Your task to perform on an android device: Search for a new desk on IKEA Image 0: 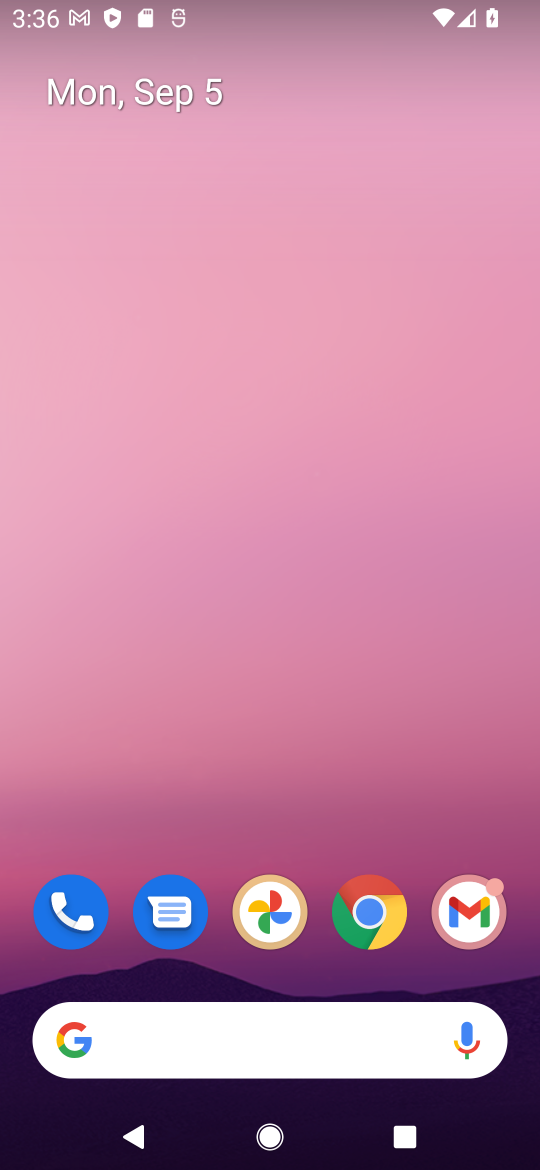
Step 0: click (355, 923)
Your task to perform on an android device: Search for a new desk on IKEA Image 1: 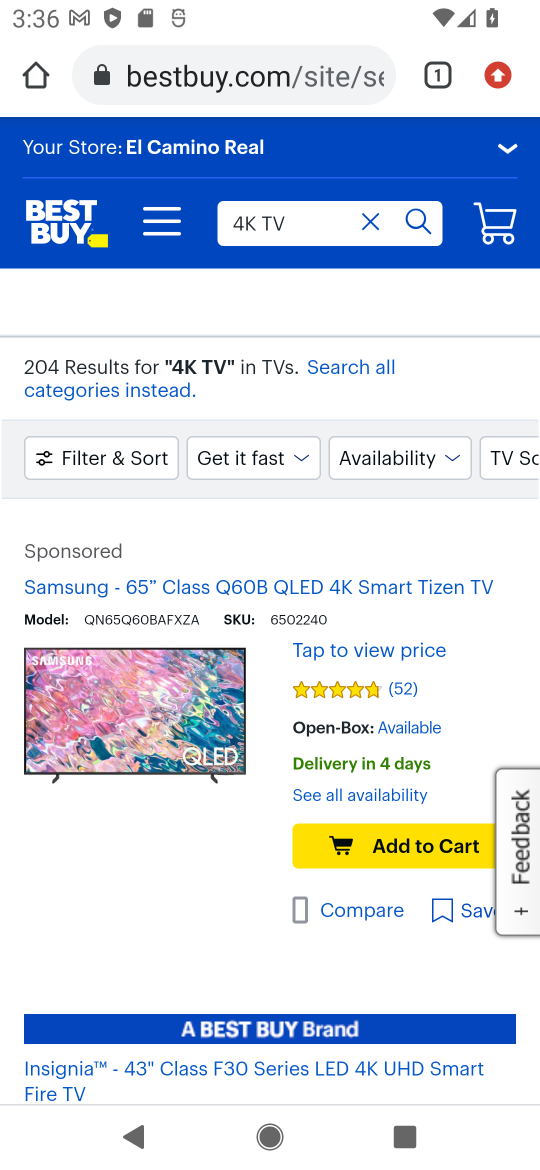
Step 1: click (279, 67)
Your task to perform on an android device: Search for a new desk on IKEA Image 2: 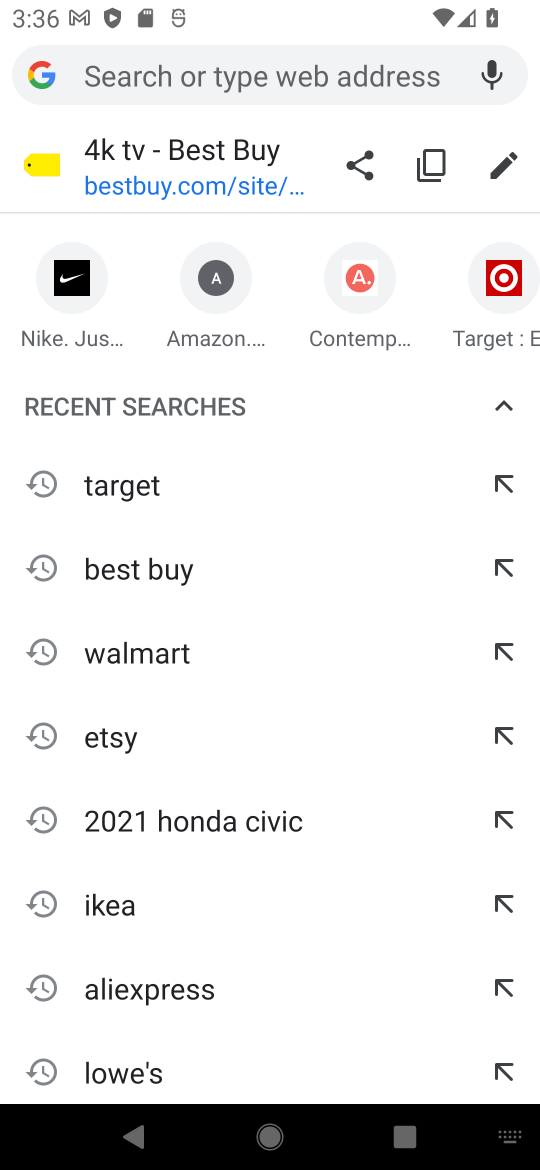
Step 2: type "ikea"
Your task to perform on an android device: Search for a new desk on IKEA Image 3: 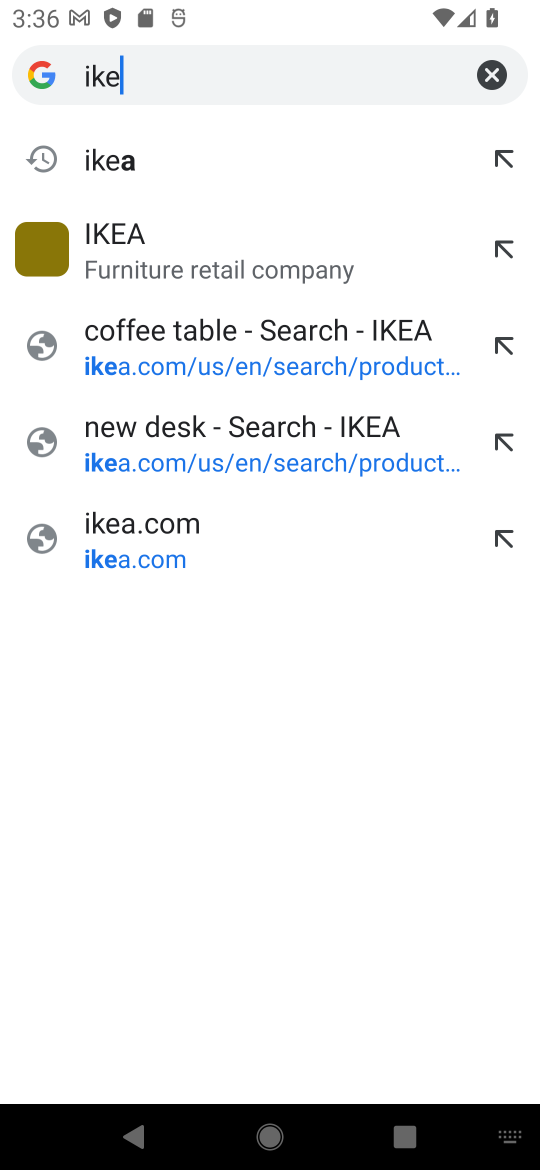
Step 3: type ""
Your task to perform on an android device: Search for a new desk on IKEA Image 4: 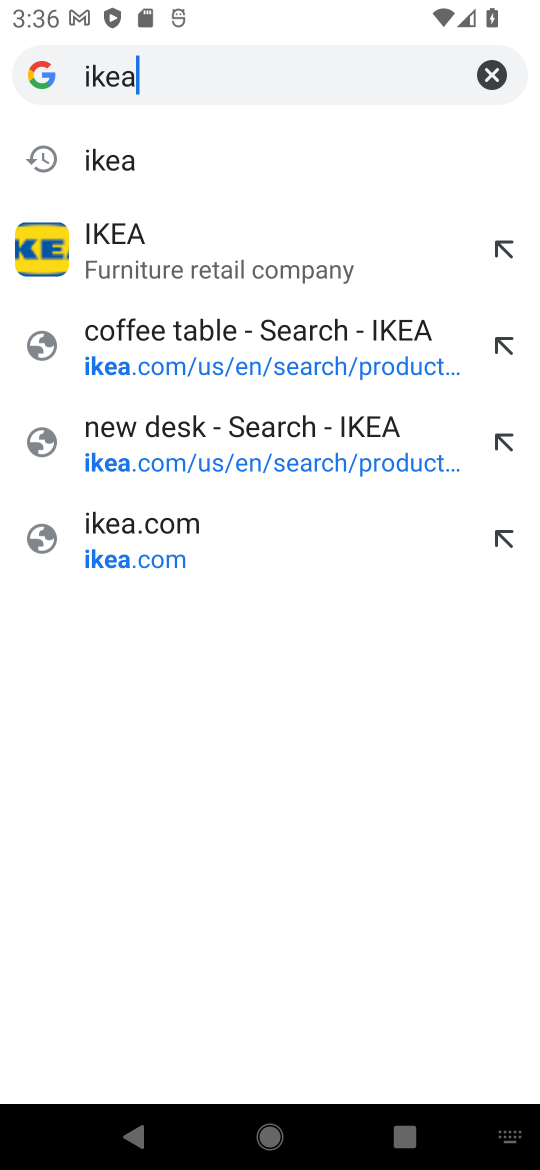
Step 4: press enter
Your task to perform on an android device: Search for a new desk on IKEA Image 5: 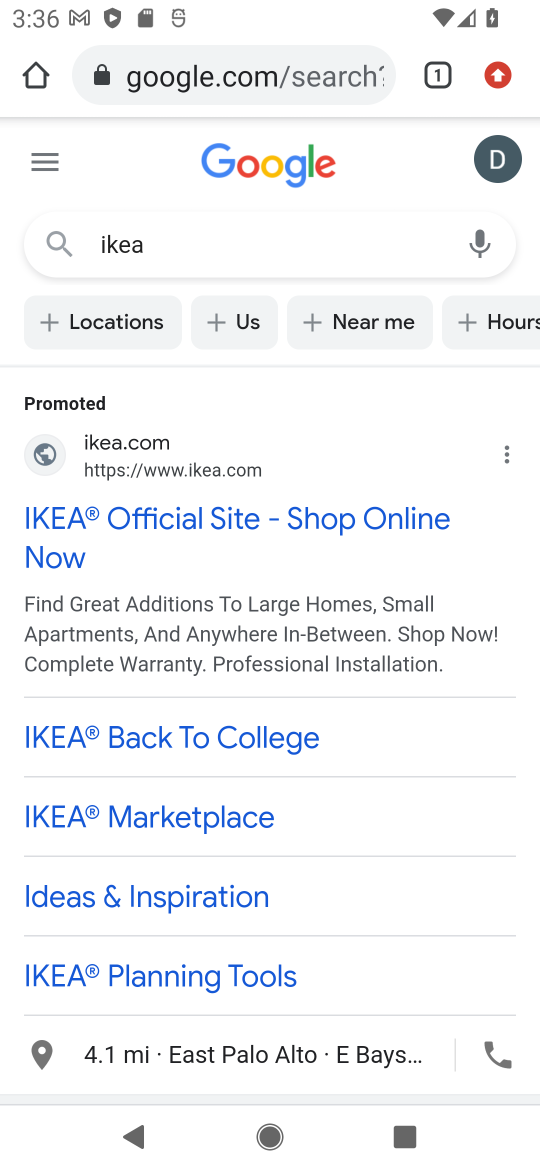
Step 5: click (227, 508)
Your task to perform on an android device: Search for a new desk on IKEA Image 6: 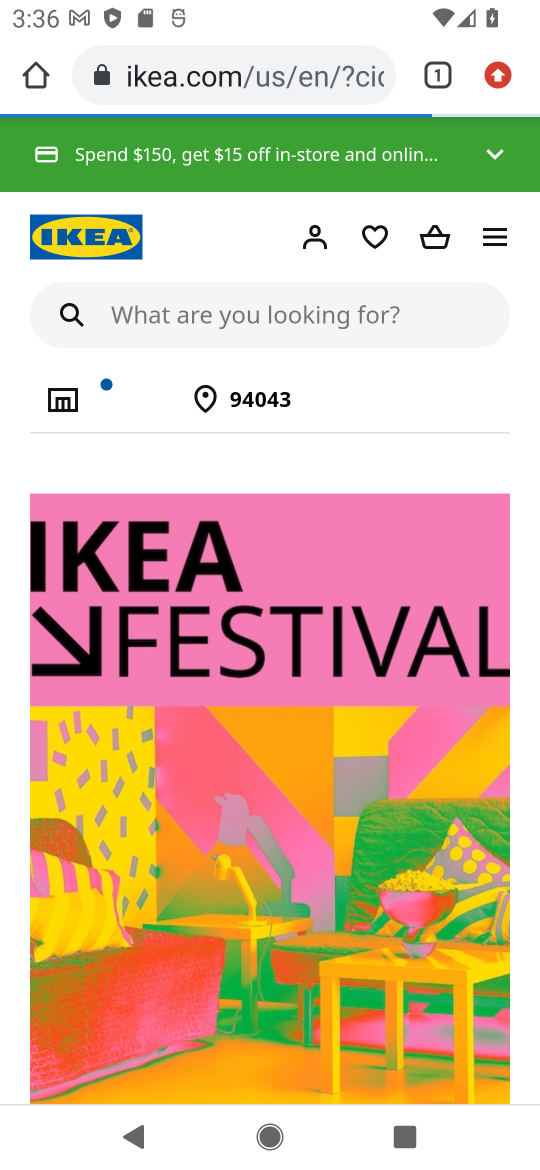
Step 6: click (259, 317)
Your task to perform on an android device: Search for a new desk on IKEA Image 7: 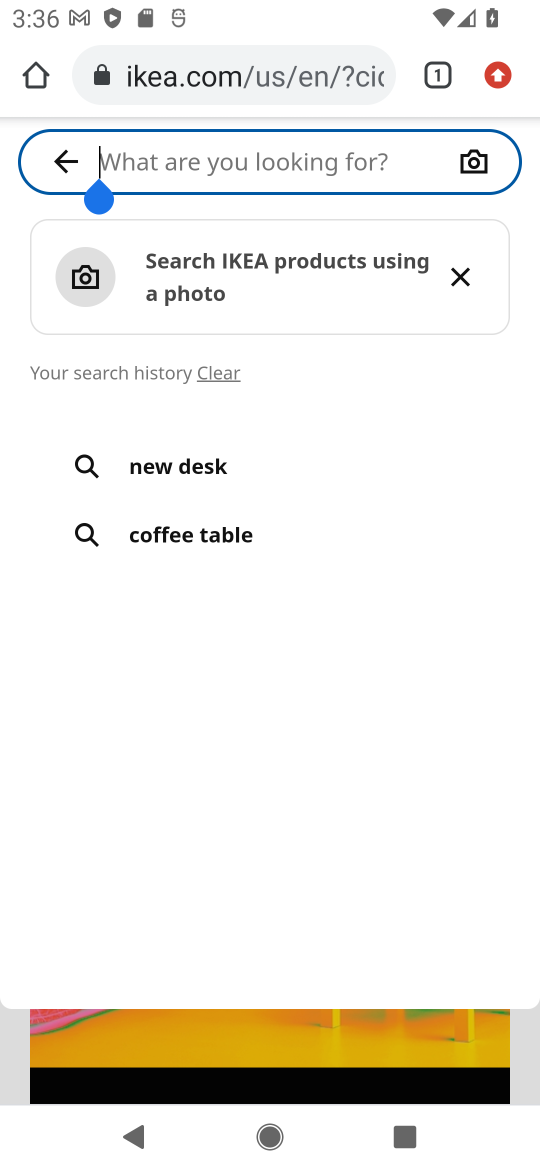
Step 7: type "new desk"
Your task to perform on an android device: Search for a new desk on IKEA Image 8: 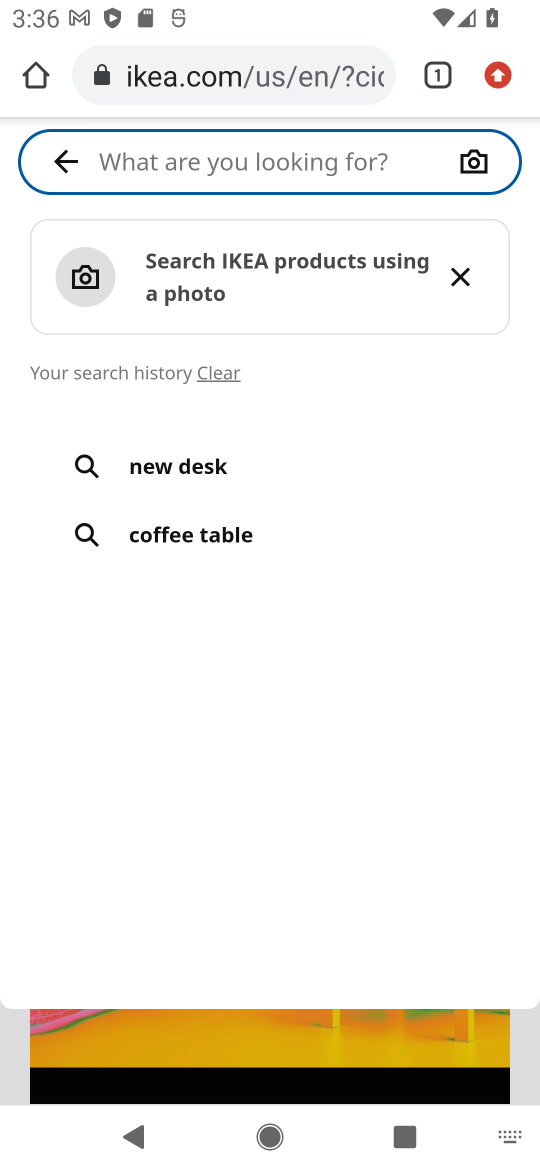
Step 8: type ""
Your task to perform on an android device: Search for a new desk on IKEA Image 9: 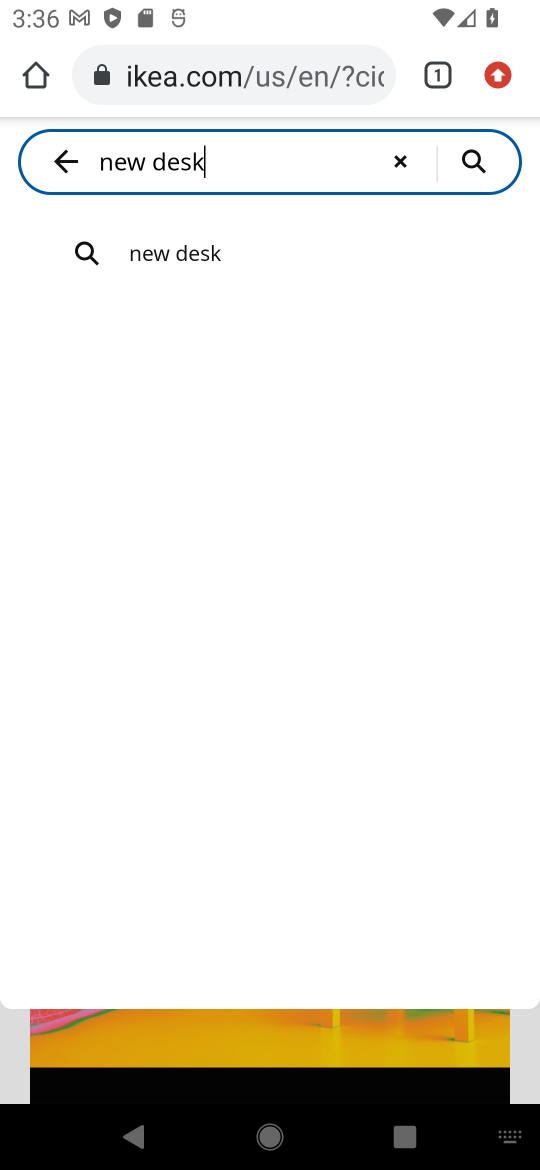
Step 9: press enter
Your task to perform on an android device: Search for a new desk on IKEA Image 10: 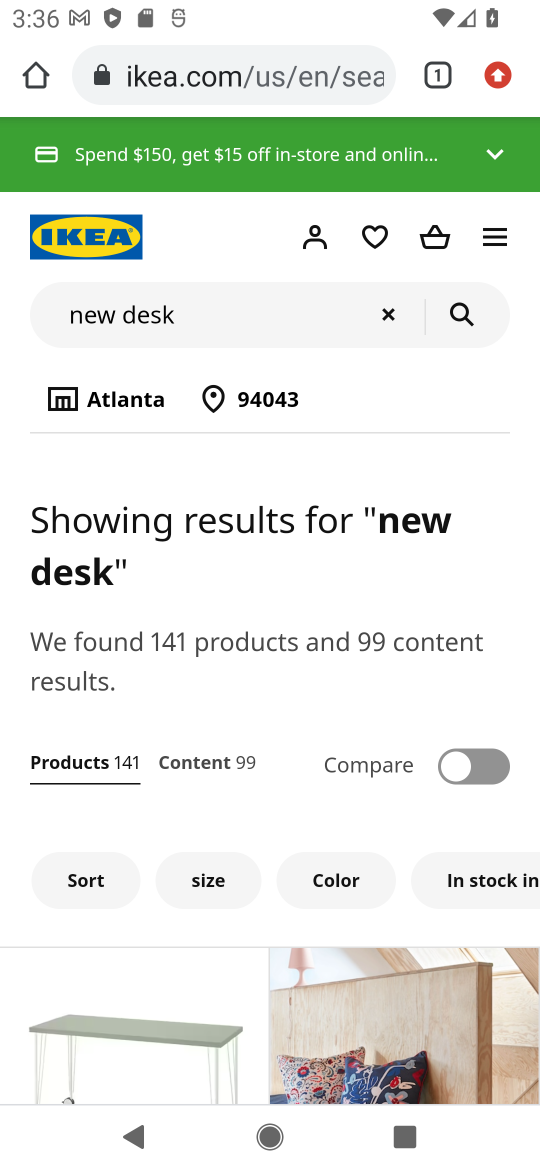
Step 10: click (92, 889)
Your task to perform on an android device: Search for a new desk on IKEA Image 11: 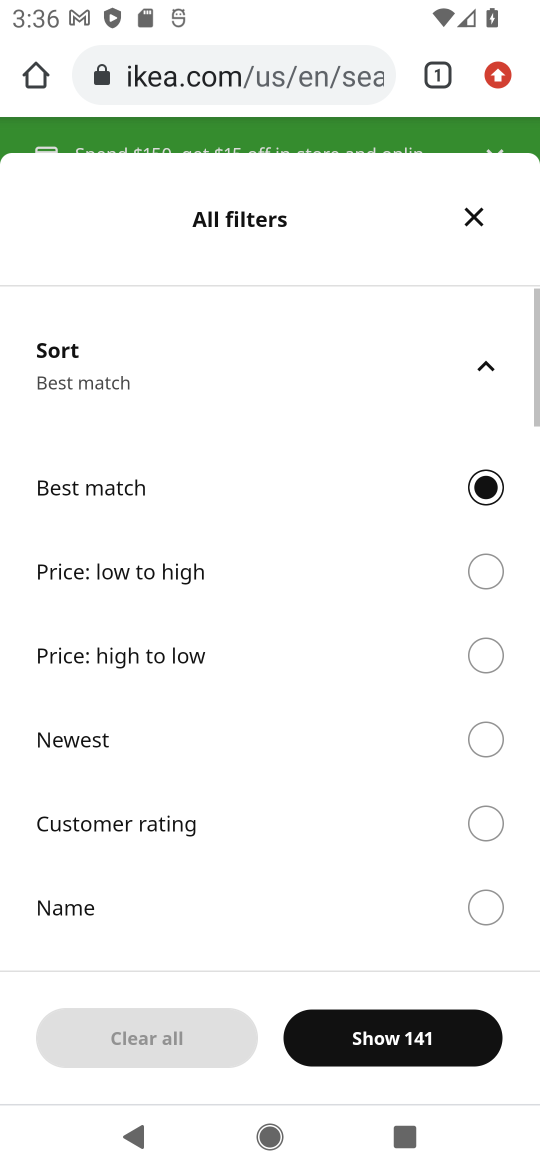
Step 11: click (486, 736)
Your task to perform on an android device: Search for a new desk on IKEA Image 12: 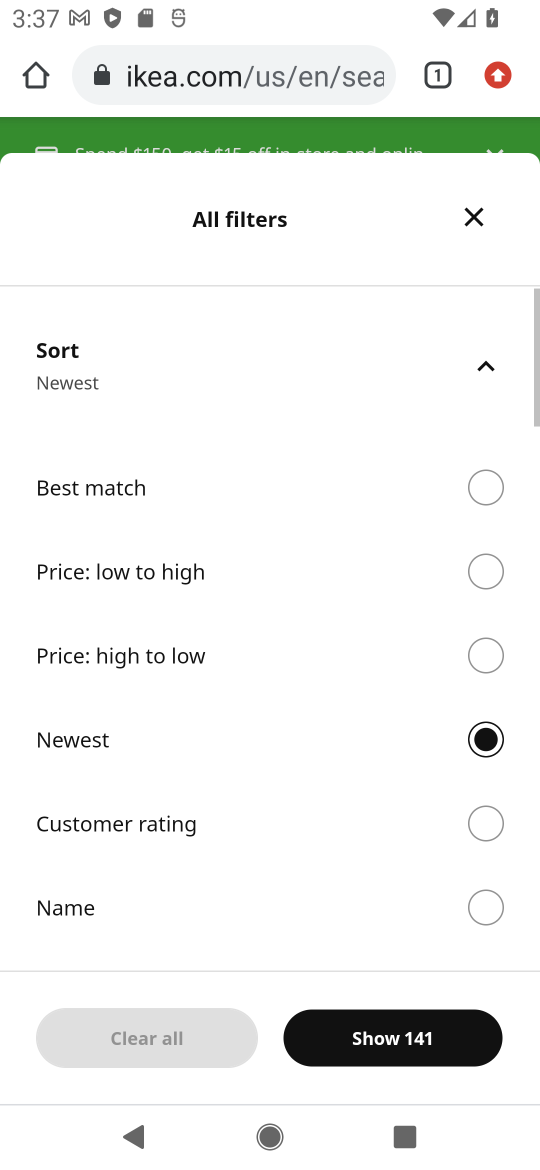
Step 12: click (466, 1029)
Your task to perform on an android device: Search for a new desk on IKEA Image 13: 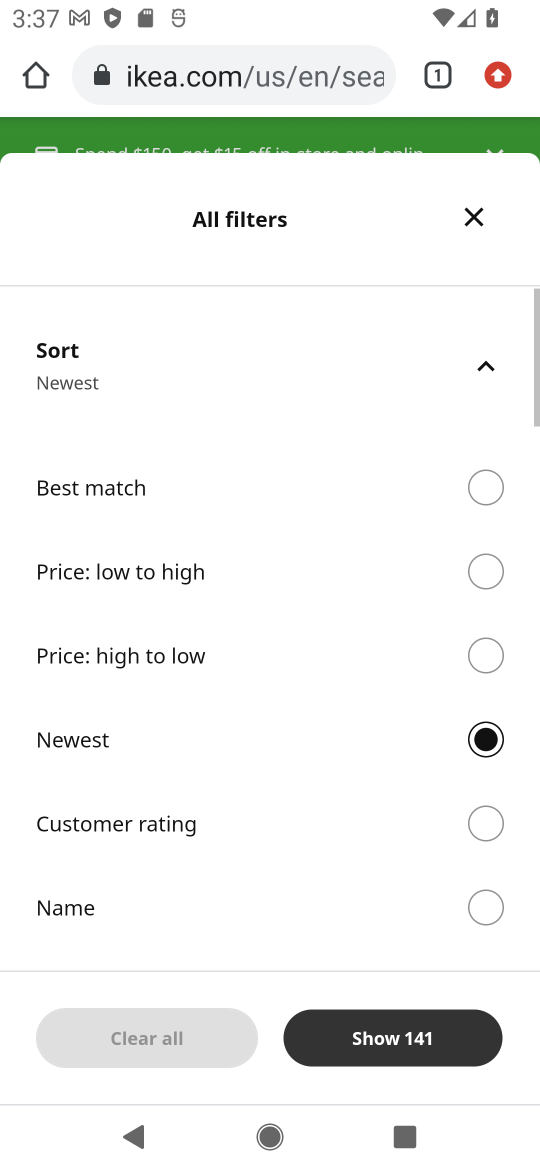
Step 13: click (345, 1049)
Your task to perform on an android device: Search for a new desk on IKEA Image 14: 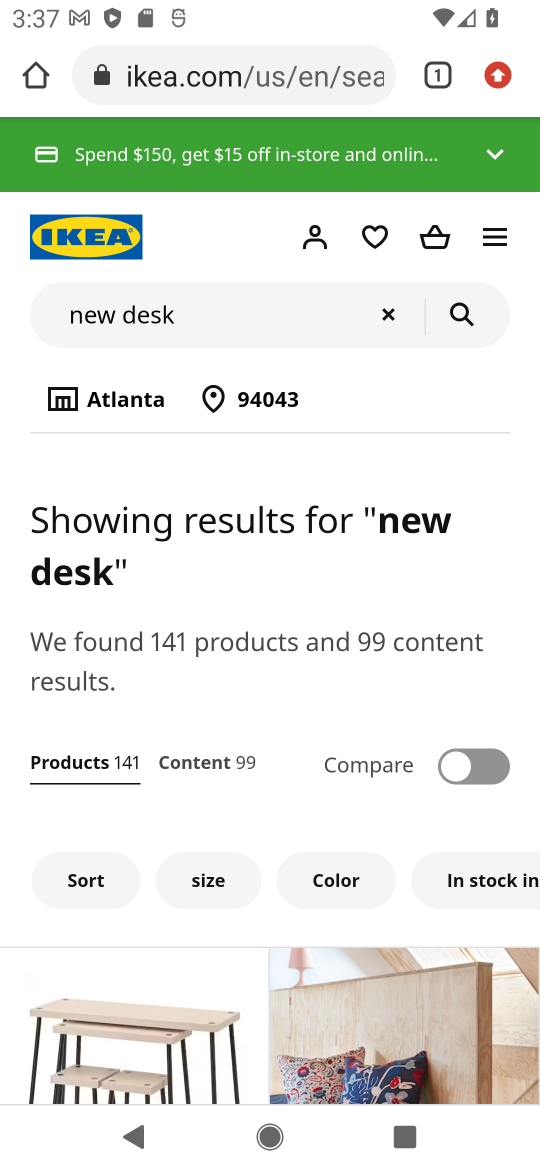
Step 14: task complete